Your task to perform on an android device: Open Youtube and go to the subscriptions tab Image 0: 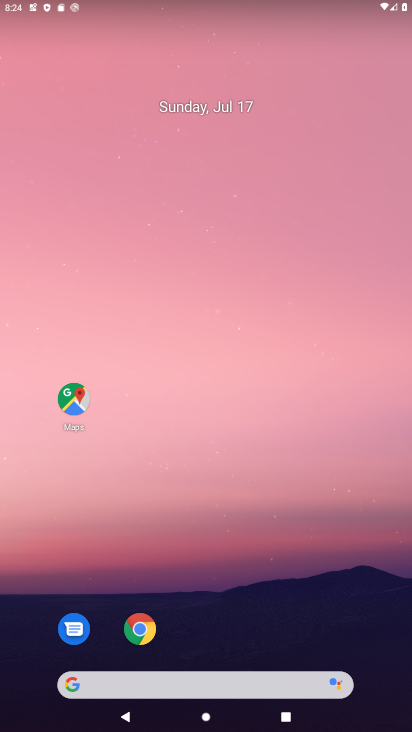
Step 0: drag from (257, 723) to (315, 44)
Your task to perform on an android device: Open Youtube and go to the subscriptions tab Image 1: 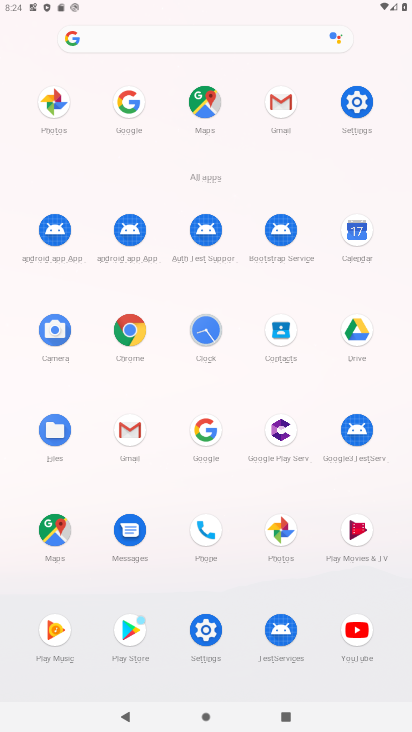
Step 1: click (361, 624)
Your task to perform on an android device: Open Youtube and go to the subscriptions tab Image 2: 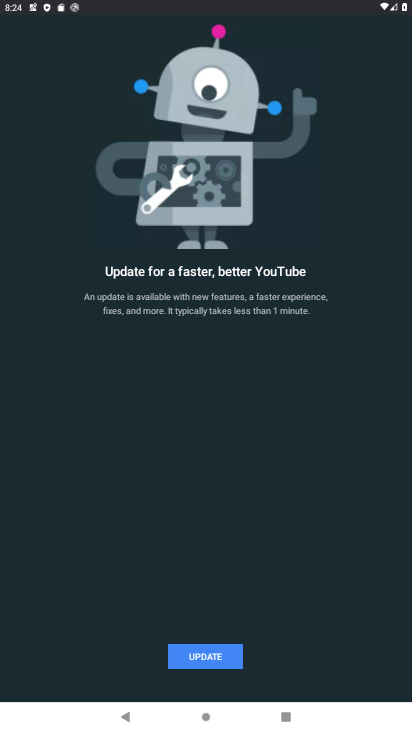
Step 2: task complete